Your task to perform on an android device: check android version Image 0: 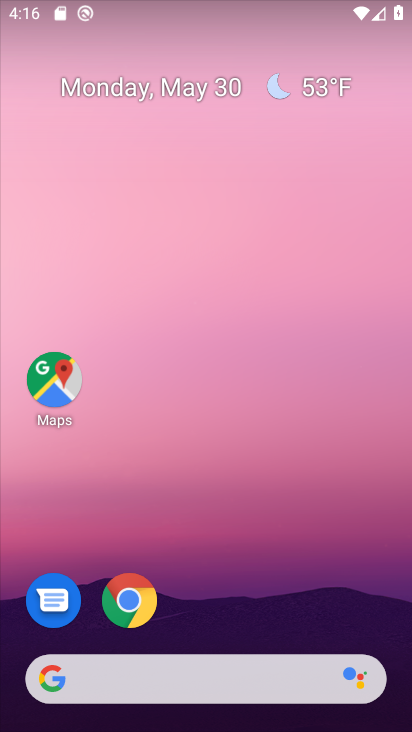
Step 0: drag from (268, 560) to (359, 1)
Your task to perform on an android device: check android version Image 1: 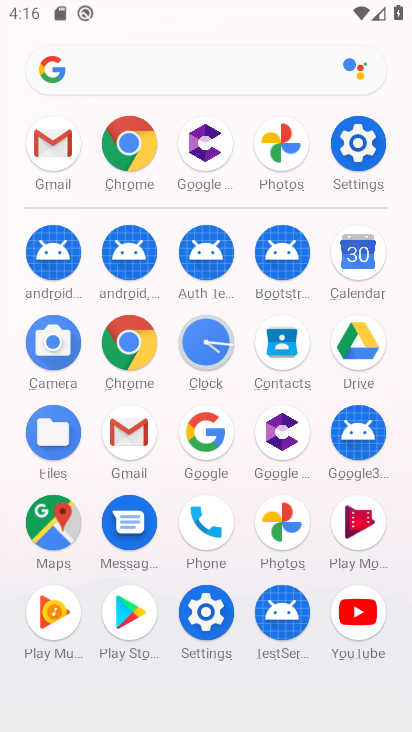
Step 1: click (353, 145)
Your task to perform on an android device: check android version Image 2: 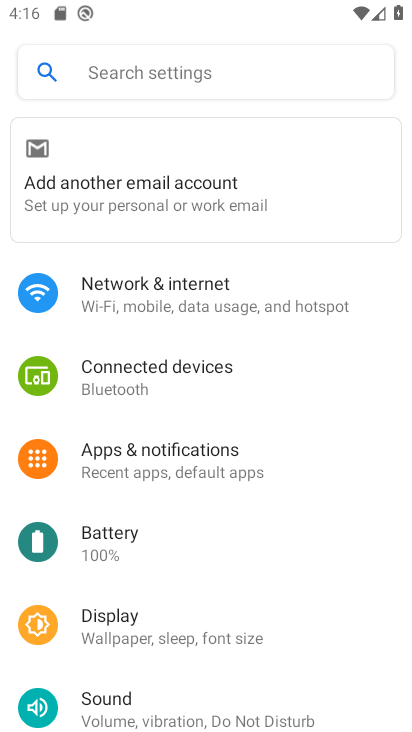
Step 2: drag from (260, 661) to (238, 220)
Your task to perform on an android device: check android version Image 3: 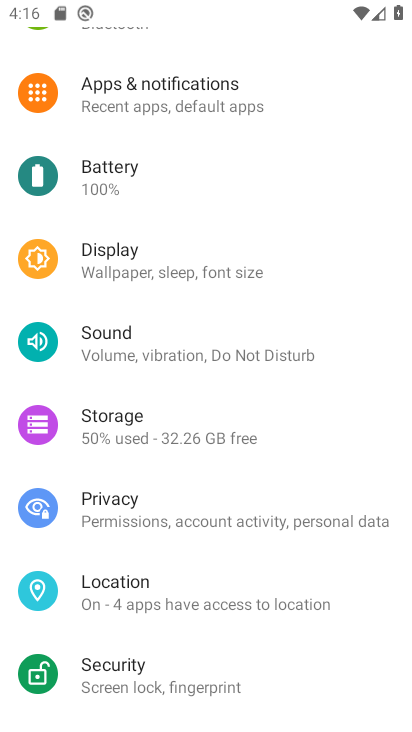
Step 3: drag from (271, 542) to (260, 132)
Your task to perform on an android device: check android version Image 4: 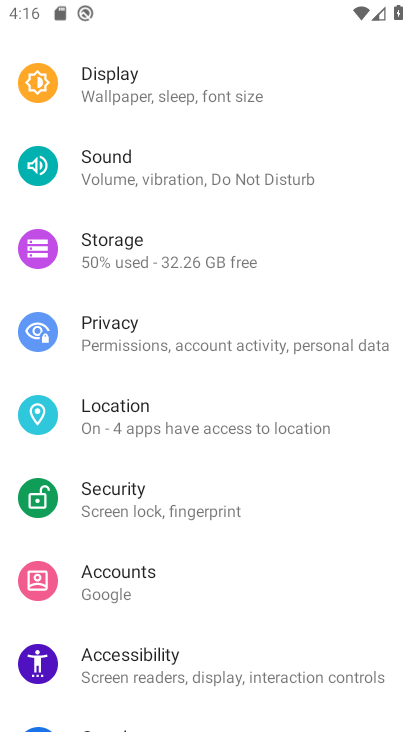
Step 4: drag from (203, 614) to (219, 116)
Your task to perform on an android device: check android version Image 5: 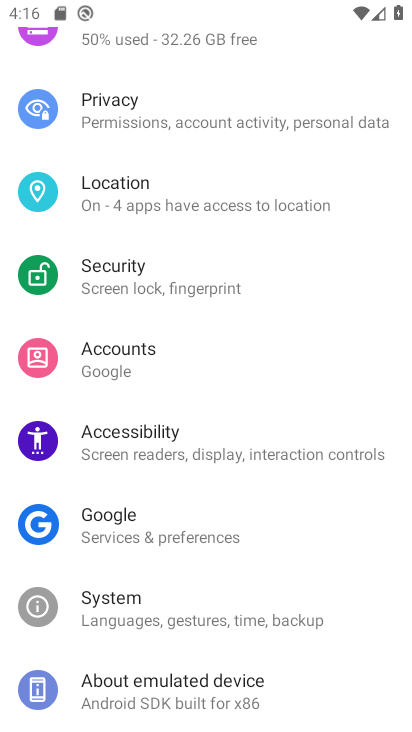
Step 5: drag from (192, 660) to (237, 250)
Your task to perform on an android device: check android version Image 6: 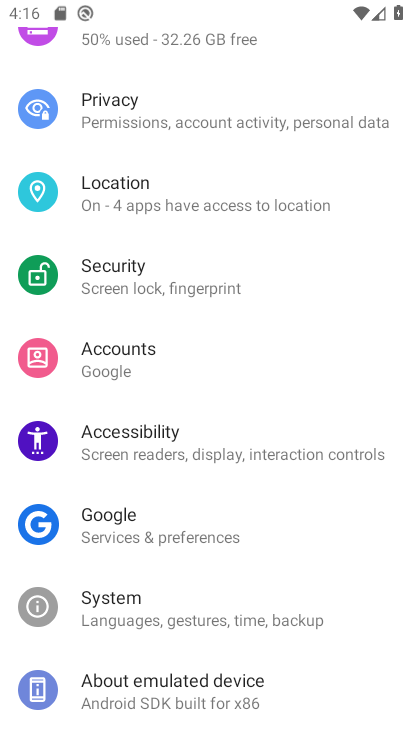
Step 6: click (182, 695)
Your task to perform on an android device: check android version Image 7: 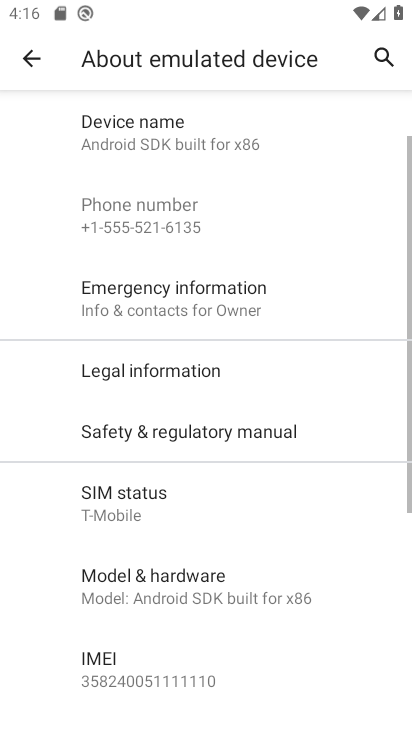
Step 7: drag from (178, 612) to (199, 217)
Your task to perform on an android device: check android version Image 8: 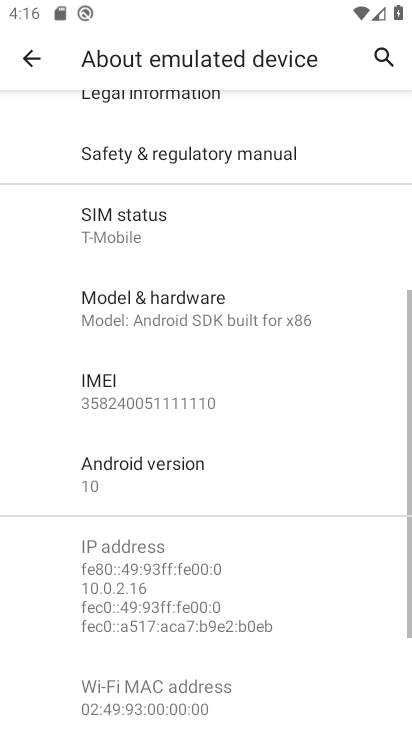
Step 8: click (154, 503)
Your task to perform on an android device: check android version Image 9: 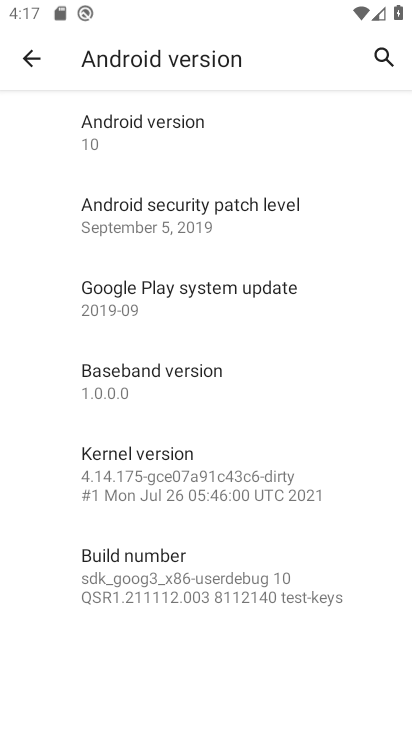
Step 9: task complete